Your task to perform on an android device: change notification settings in the gmail app Image 0: 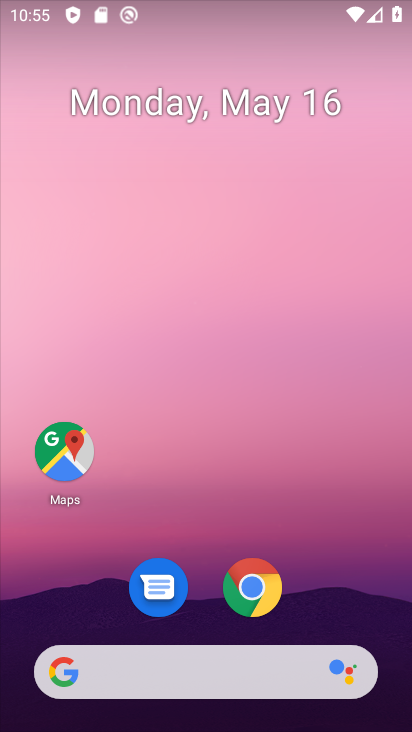
Step 0: drag from (382, 635) to (241, 53)
Your task to perform on an android device: change notification settings in the gmail app Image 1: 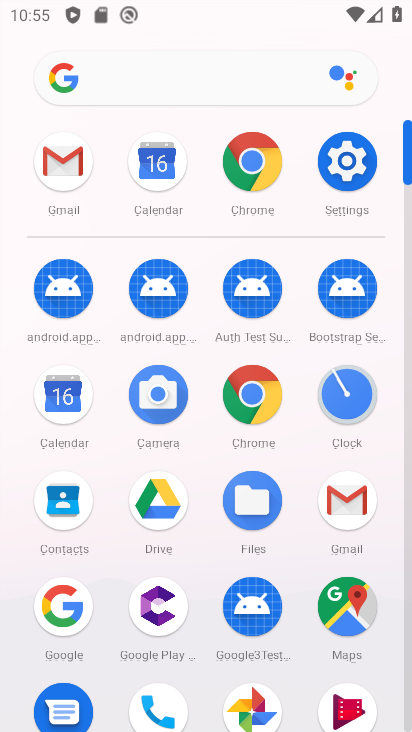
Step 1: click (56, 183)
Your task to perform on an android device: change notification settings in the gmail app Image 2: 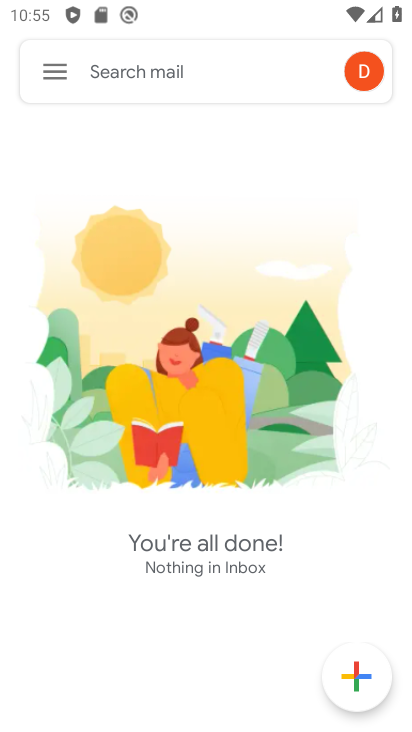
Step 2: click (40, 71)
Your task to perform on an android device: change notification settings in the gmail app Image 3: 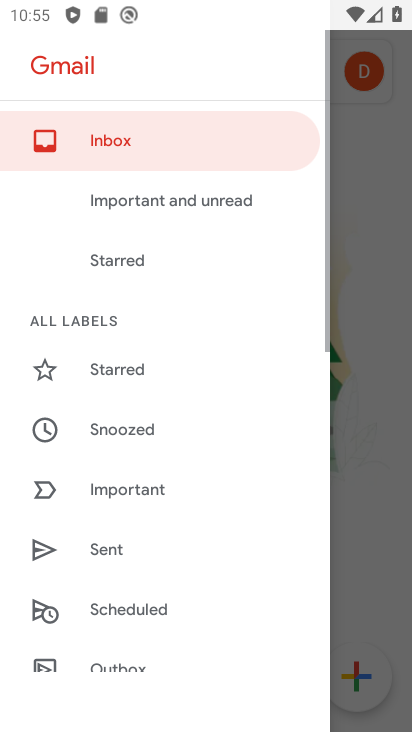
Step 3: drag from (123, 596) to (101, 84)
Your task to perform on an android device: change notification settings in the gmail app Image 4: 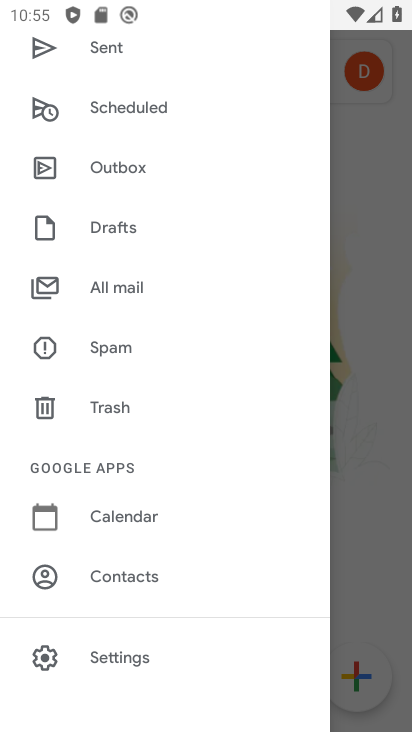
Step 4: click (103, 650)
Your task to perform on an android device: change notification settings in the gmail app Image 5: 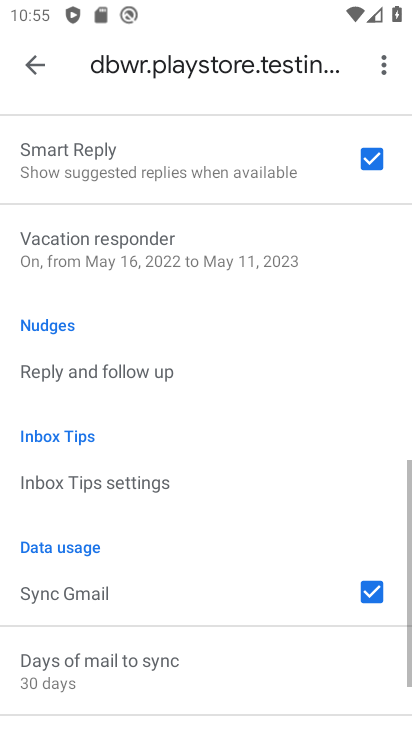
Step 5: drag from (157, 196) to (198, 694)
Your task to perform on an android device: change notification settings in the gmail app Image 6: 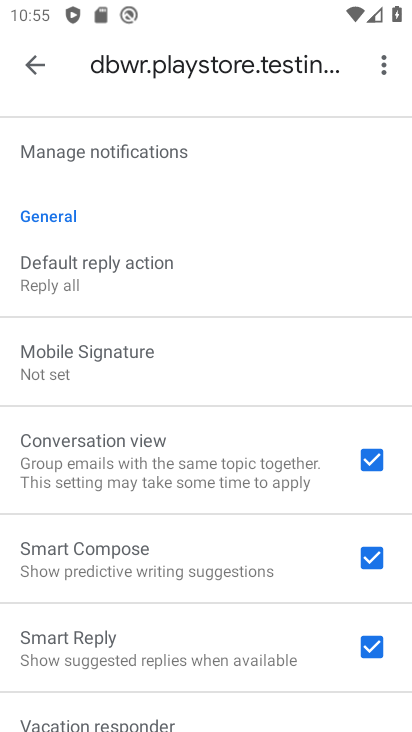
Step 6: drag from (188, 207) to (230, 649)
Your task to perform on an android device: change notification settings in the gmail app Image 7: 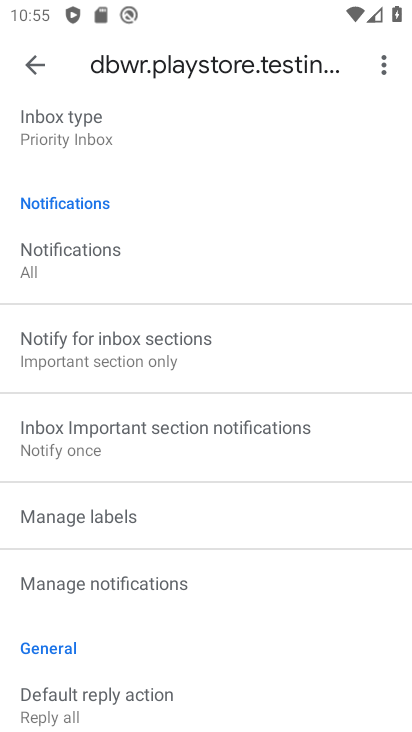
Step 7: click (166, 277)
Your task to perform on an android device: change notification settings in the gmail app Image 8: 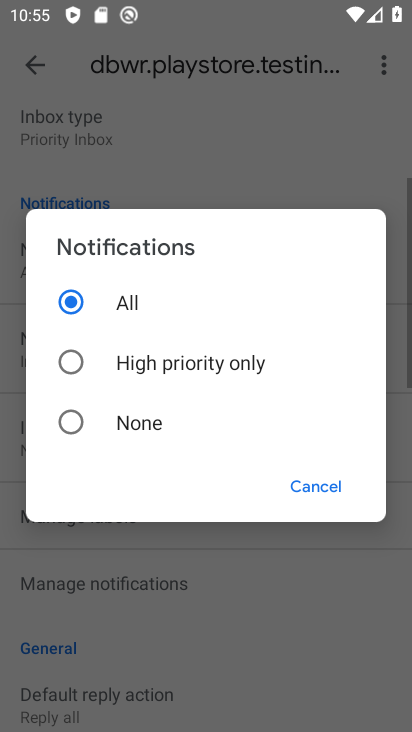
Step 8: click (128, 417)
Your task to perform on an android device: change notification settings in the gmail app Image 9: 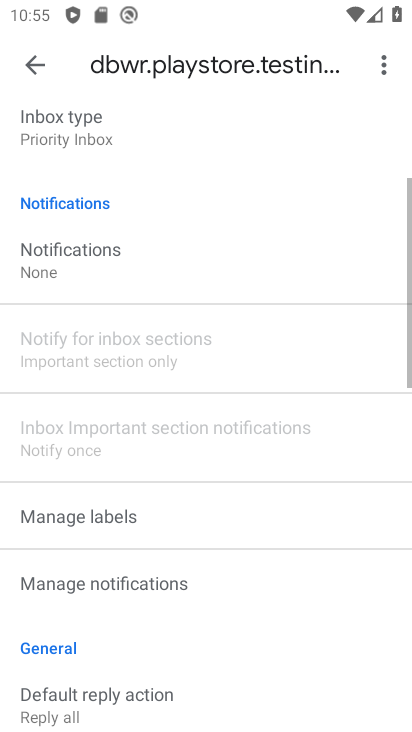
Step 9: task complete